Your task to perform on an android device: Add usb-a to the cart on ebay.com, then select checkout. Image 0: 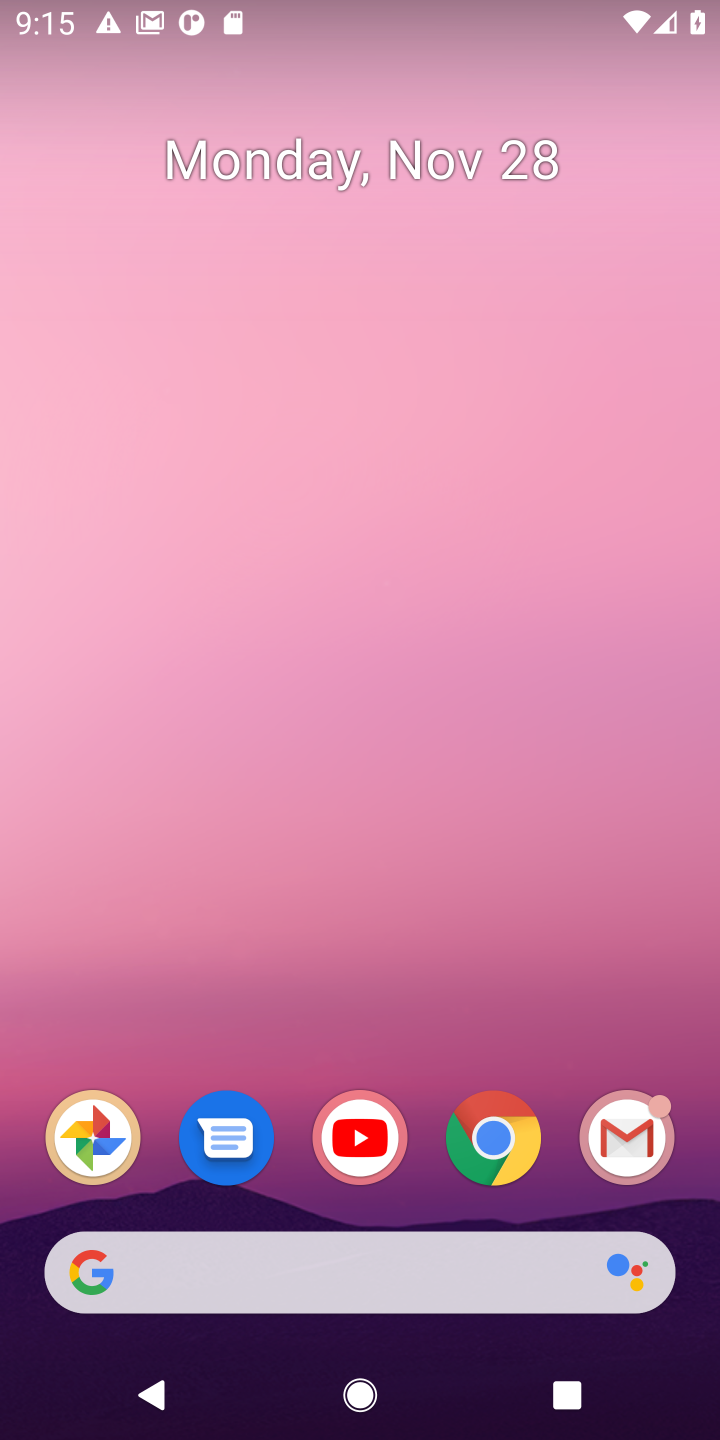
Step 0: click (508, 1151)
Your task to perform on an android device: Add usb-a to the cart on ebay.com, then select checkout. Image 1: 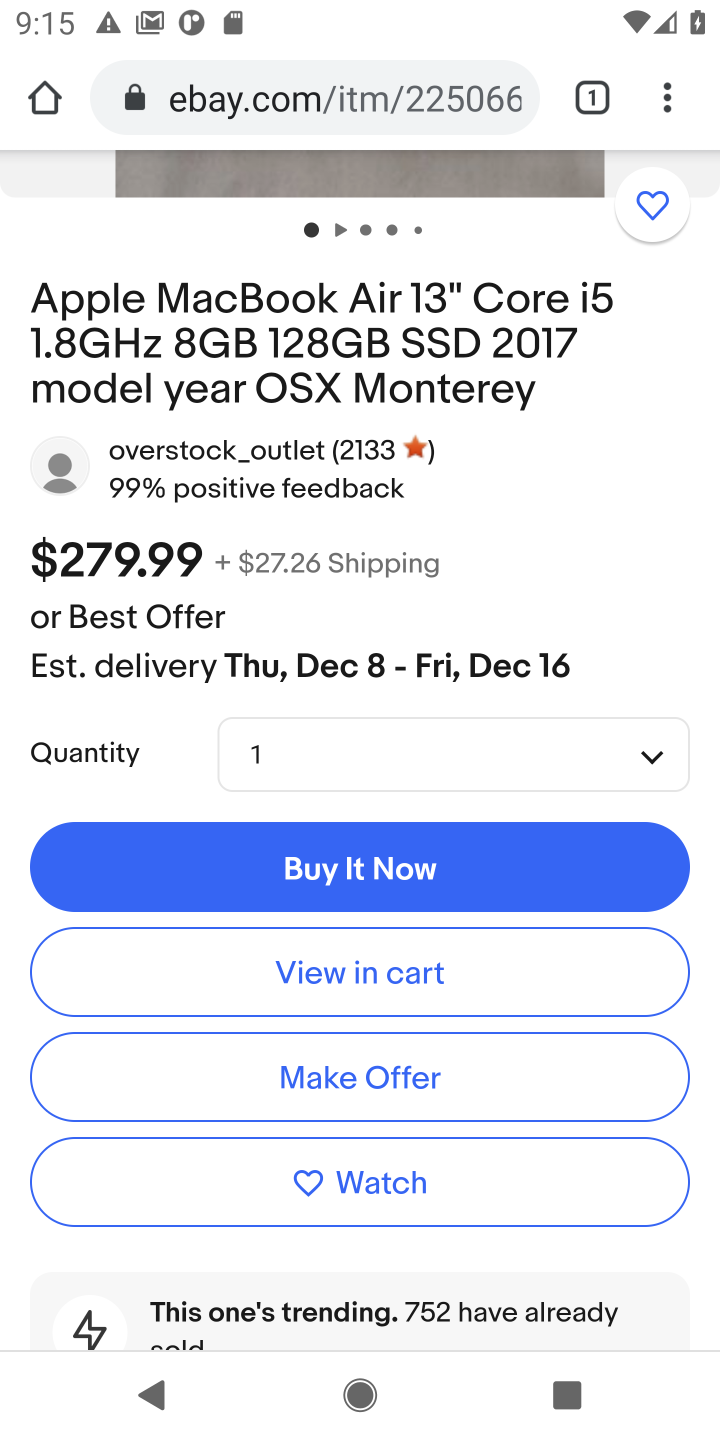
Step 1: drag from (641, 443) to (684, 997)
Your task to perform on an android device: Add usb-a to the cart on ebay.com, then select checkout. Image 2: 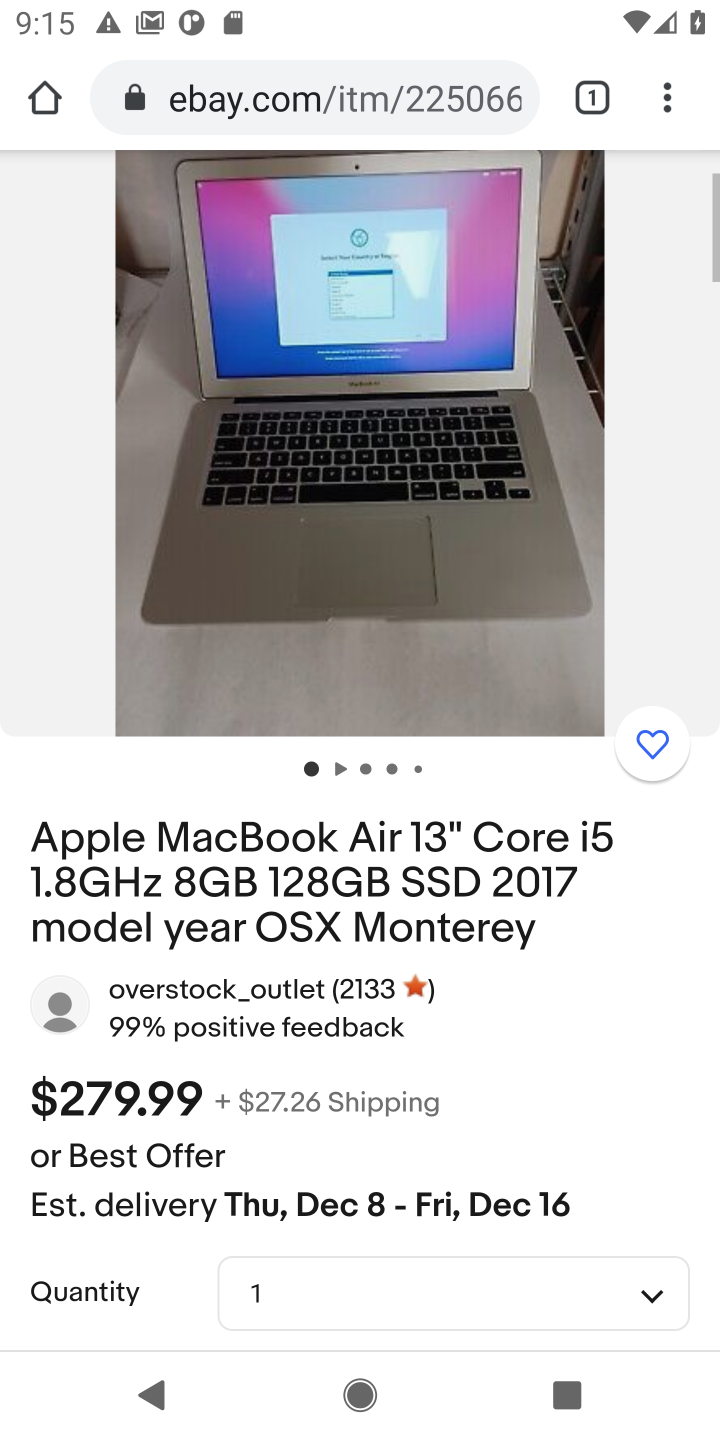
Step 2: drag from (684, 482) to (656, 1086)
Your task to perform on an android device: Add usb-a to the cart on ebay.com, then select checkout. Image 3: 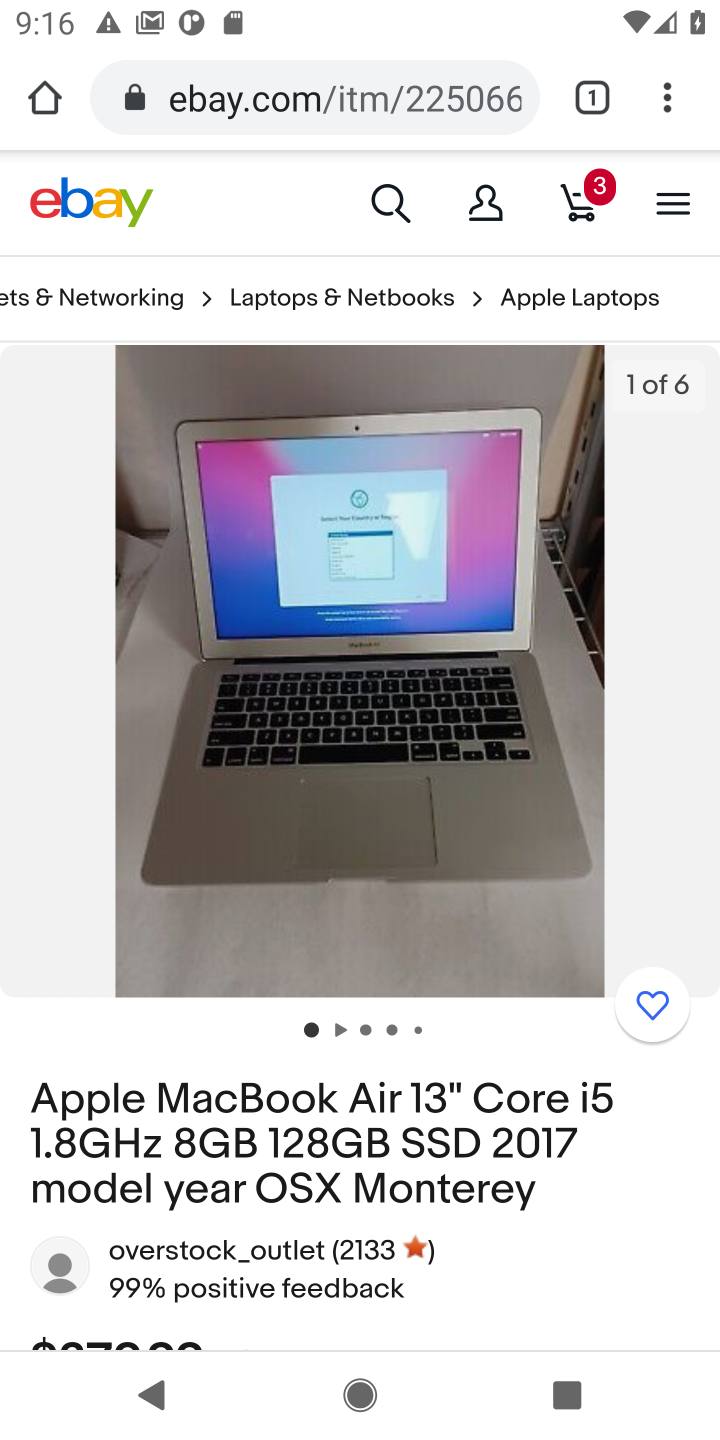
Step 3: click (399, 209)
Your task to perform on an android device: Add usb-a to the cart on ebay.com, then select checkout. Image 4: 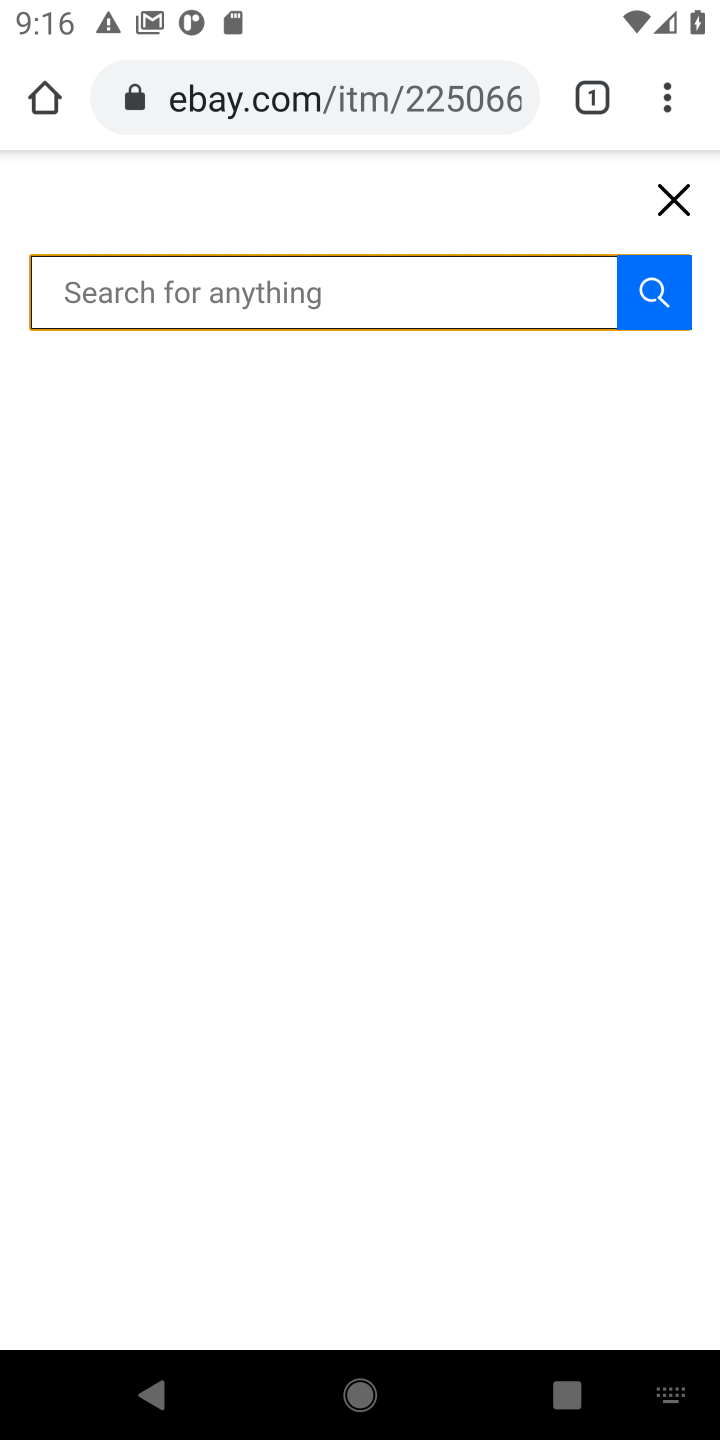
Step 4: type "usb-a"
Your task to perform on an android device: Add usb-a to the cart on ebay.com, then select checkout. Image 5: 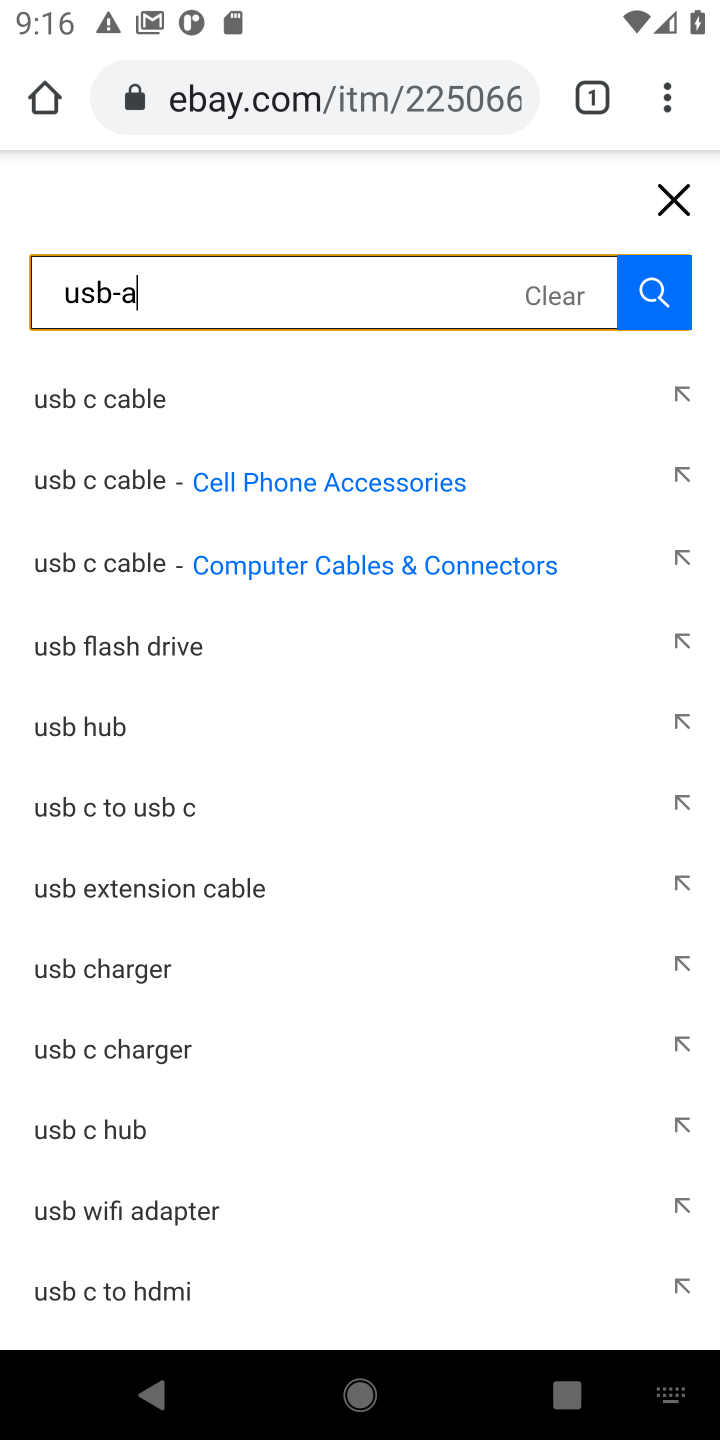
Step 5: click (664, 289)
Your task to perform on an android device: Add usb-a to the cart on ebay.com, then select checkout. Image 6: 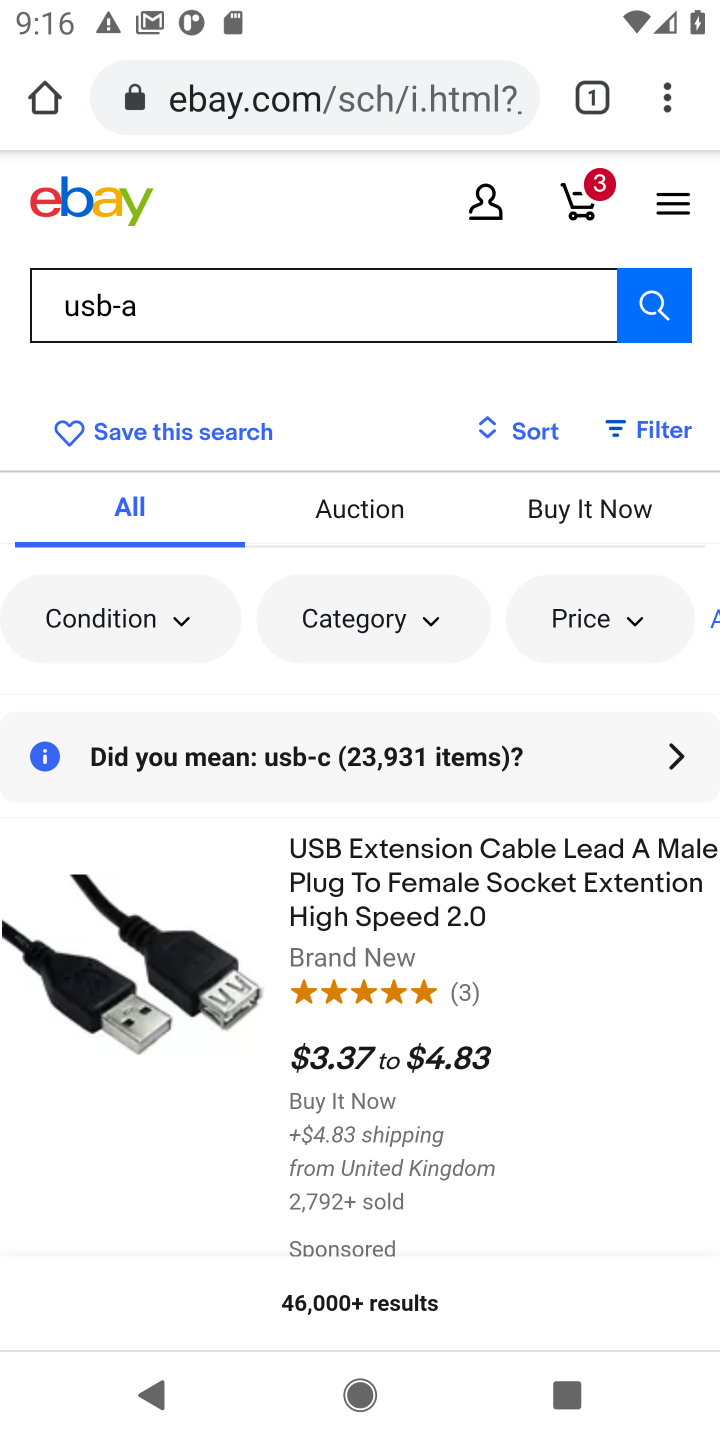
Step 6: drag from (489, 1064) to (507, 588)
Your task to perform on an android device: Add usb-a to the cart on ebay.com, then select checkout. Image 7: 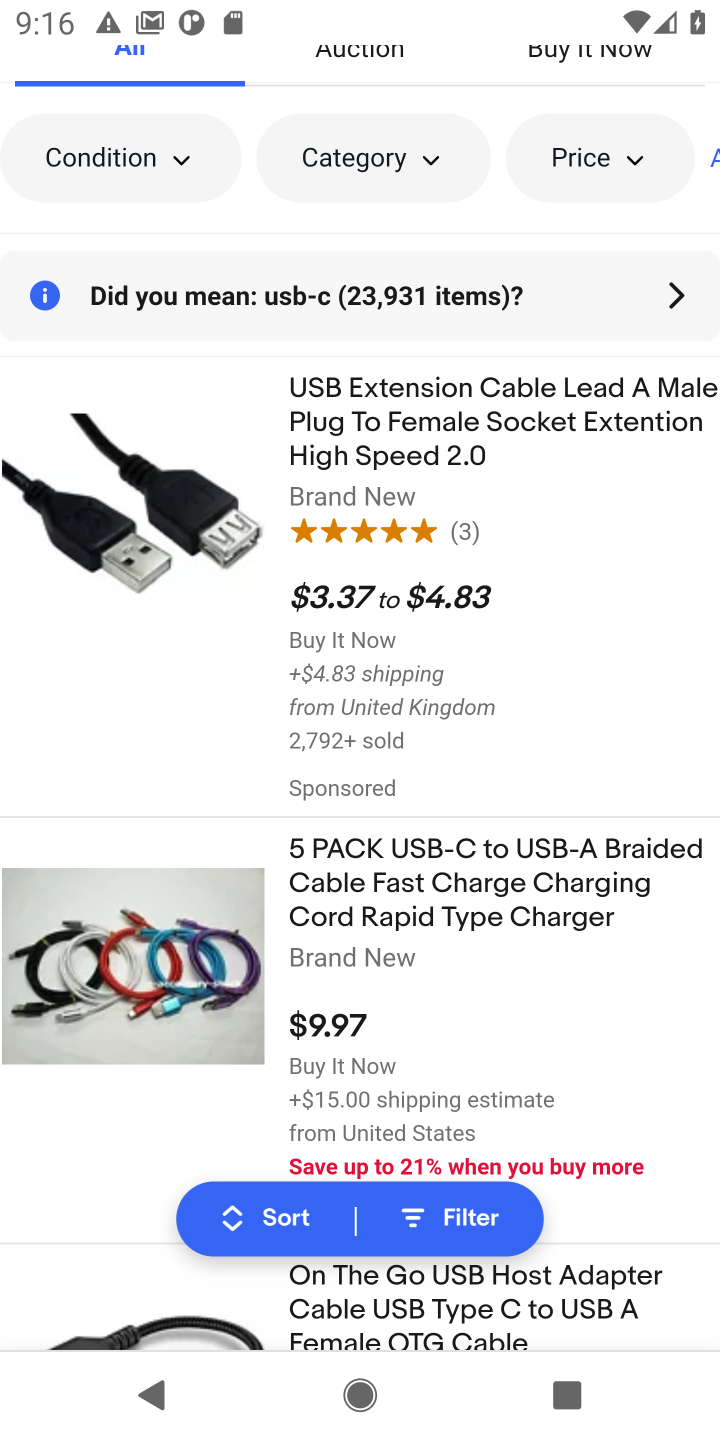
Step 7: drag from (461, 979) to (495, 737)
Your task to perform on an android device: Add usb-a to the cart on ebay.com, then select checkout. Image 8: 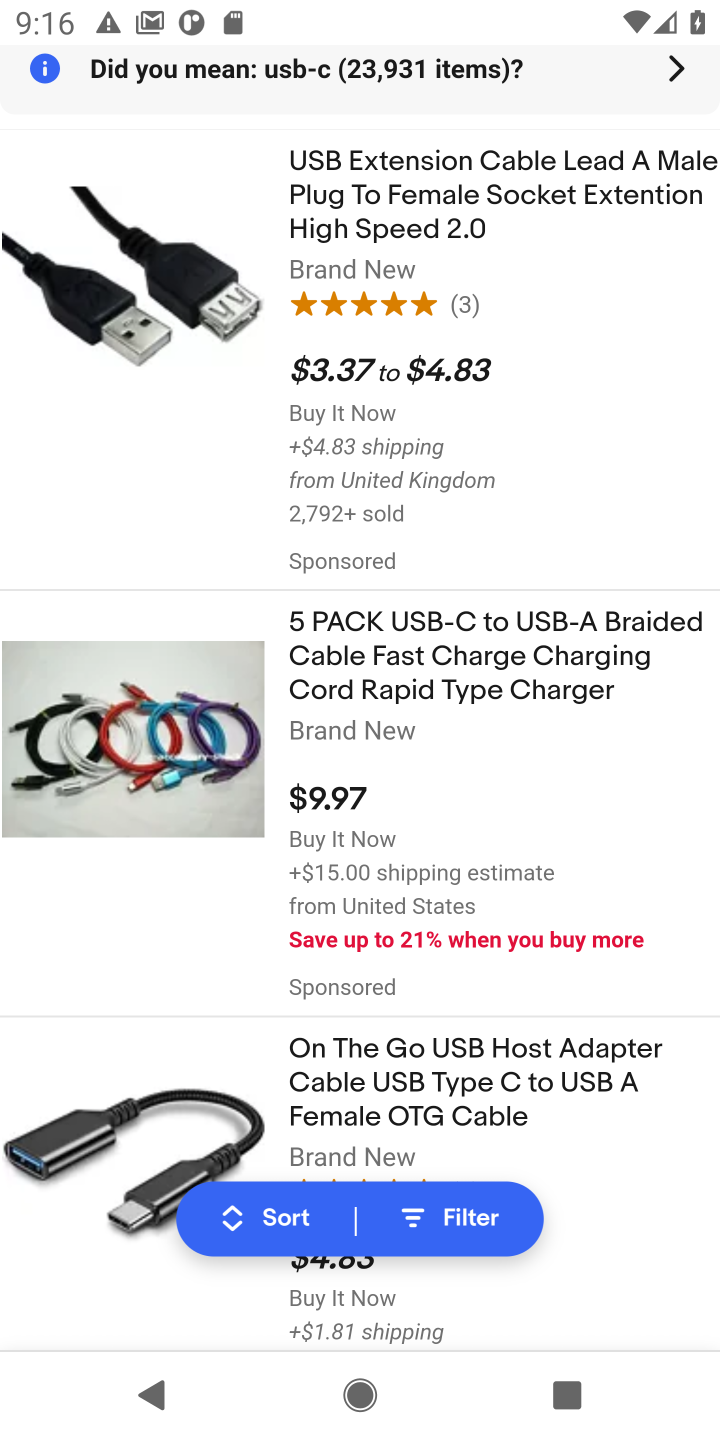
Step 8: click (352, 690)
Your task to perform on an android device: Add usb-a to the cart on ebay.com, then select checkout. Image 9: 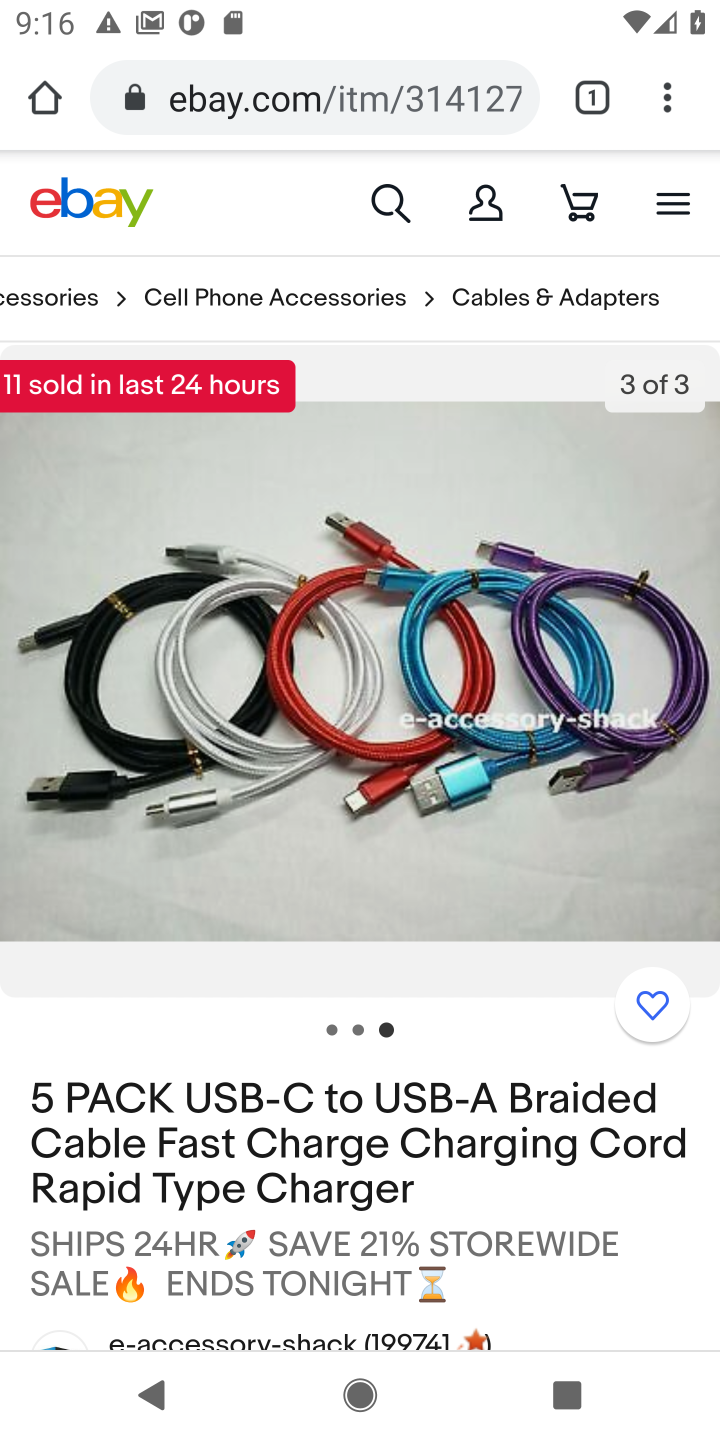
Step 9: drag from (322, 1149) to (327, 713)
Your task to perform on an android device: Add usb-a to the cart on ebay.com, then select checkout. Image 10: 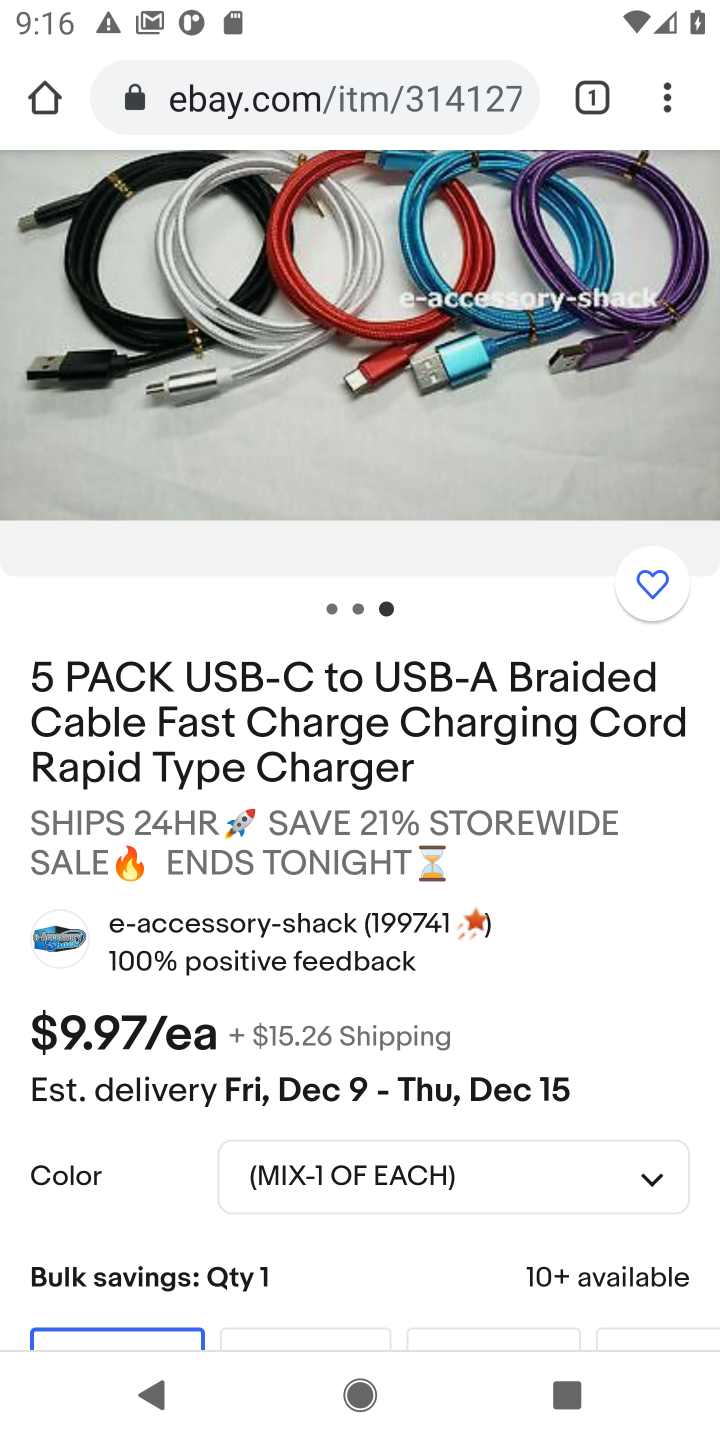
Step 10: drag from (352, 1191) to (369, 748)
Your task to perform on an android device: Add usb-a to the cart on ebay.com, then select checkout. Image 11: 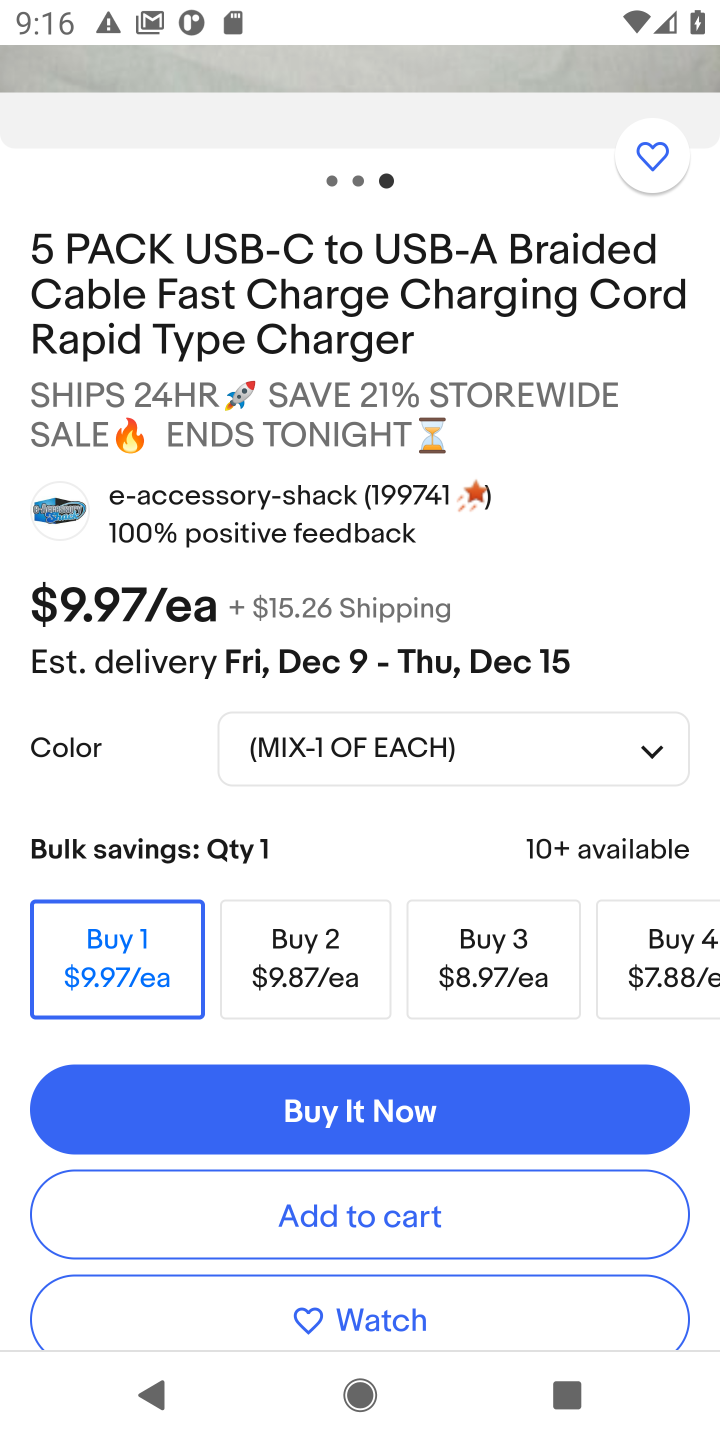
Step 11: click (335, 1205)
Your task to perform on an android device: Add usb-a to the cart on ebay.com, then select checkout. Image 12: 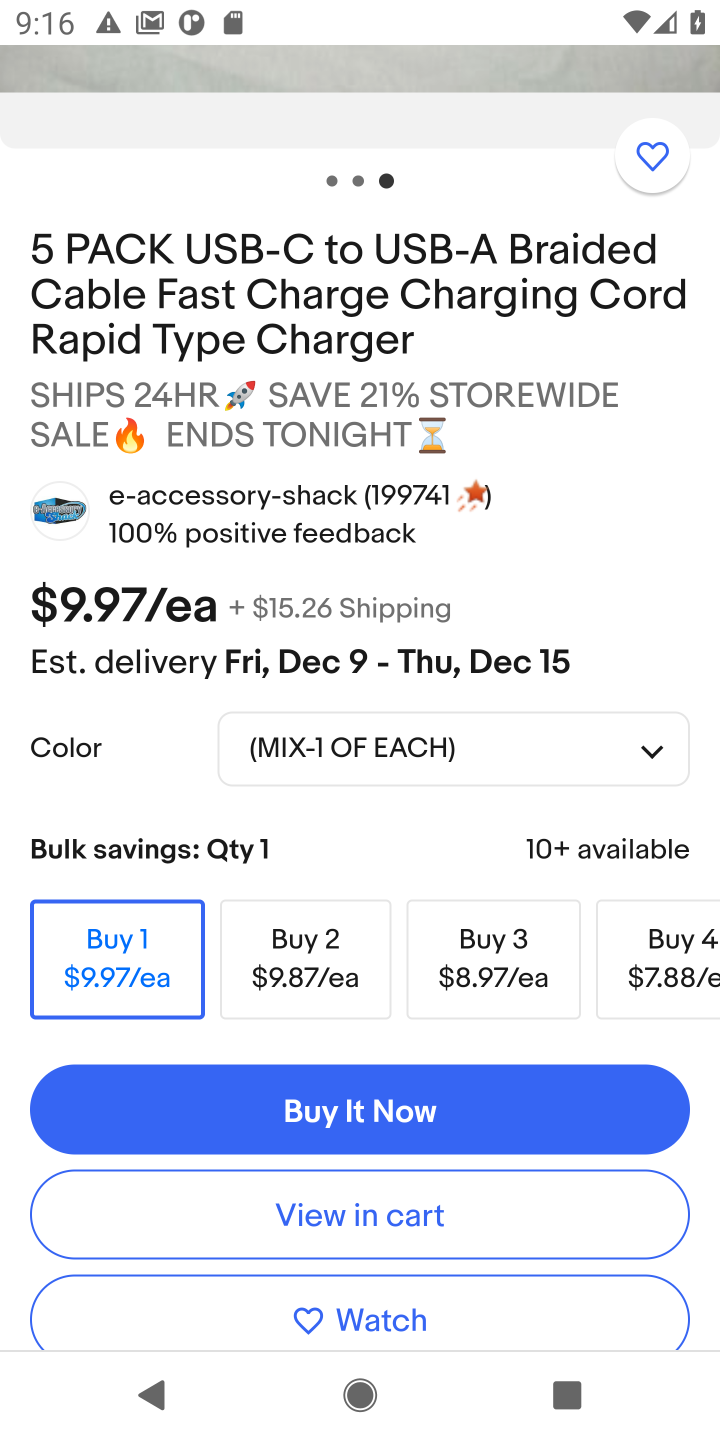
Step 12: click (335, 1205)
Your task to perform on an android device: Add usb-a to the cart on ebay.com, then select checkout. Image 13: 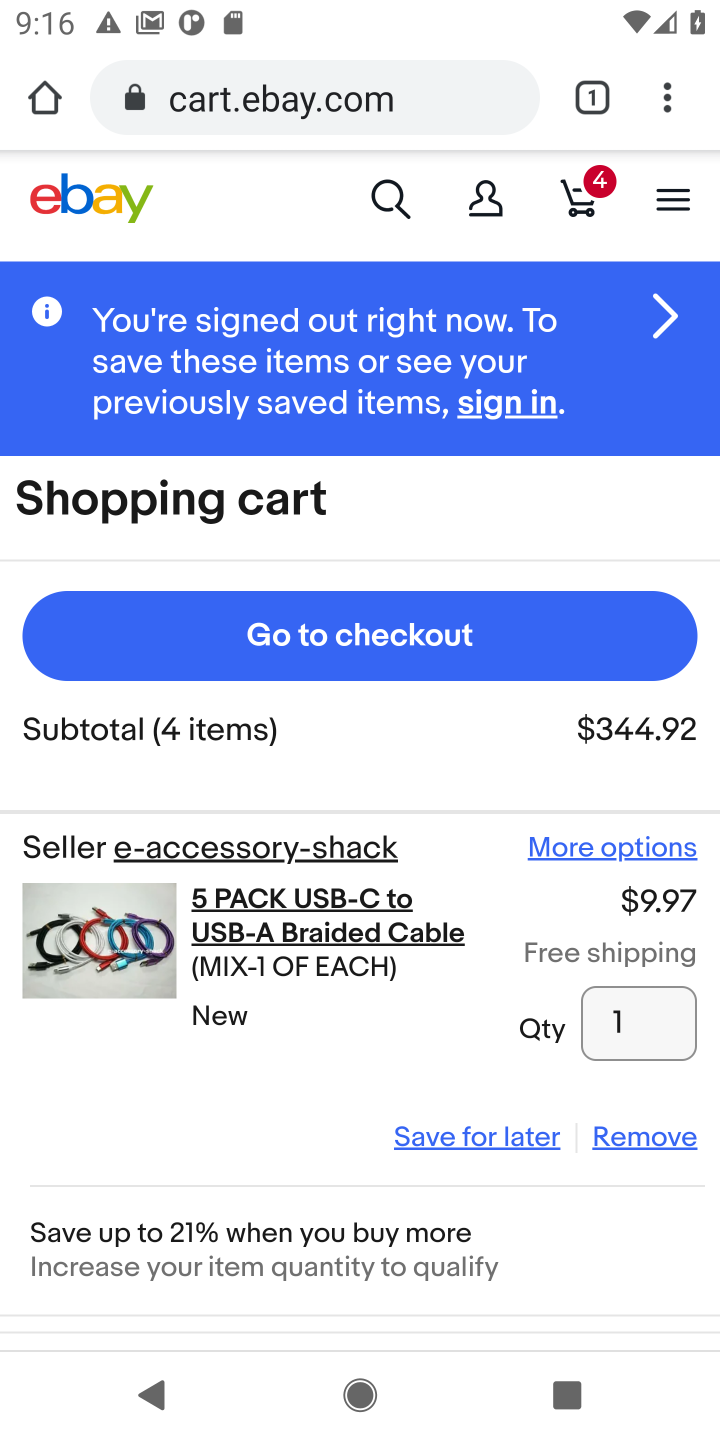
Step 13: click (331, 648)
Your task to perform on an android device: Add usb-a to the cart on ebay.com, then select checkout. Image 14: 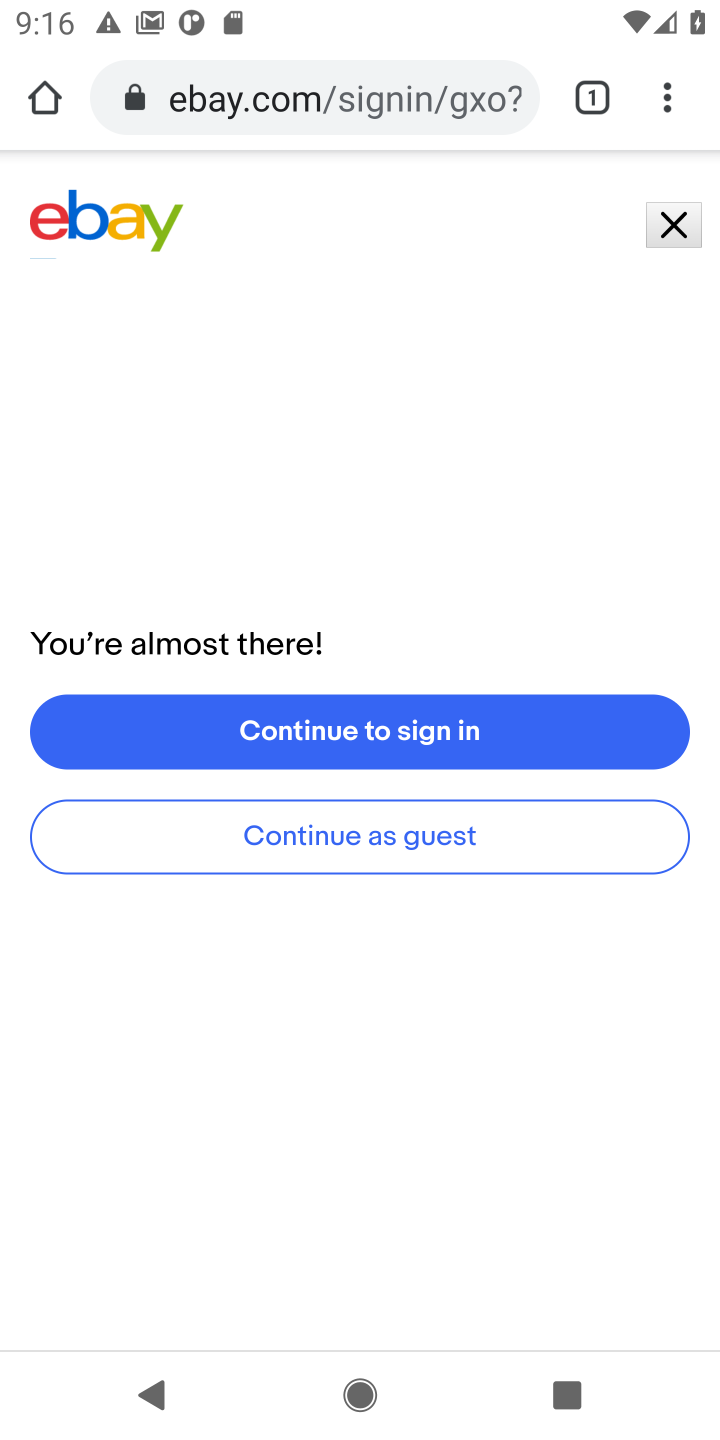
Step 14: task complete